Your task to perform on an android device: find which apps use the phone's location Image 0: 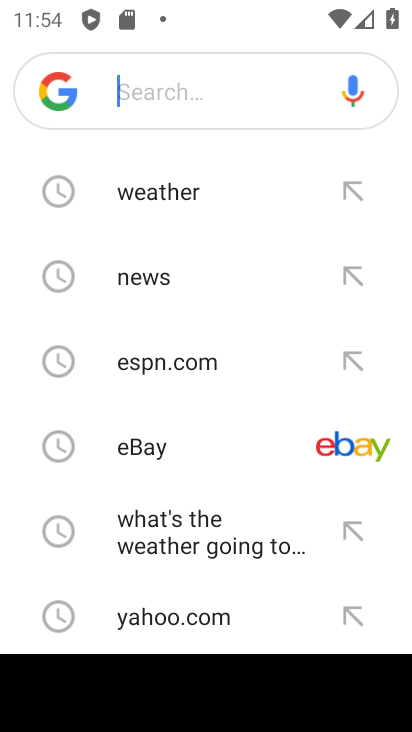
Step 0: press home button
Your task to perform on an android device: find which apps use the phone's location Image 1: 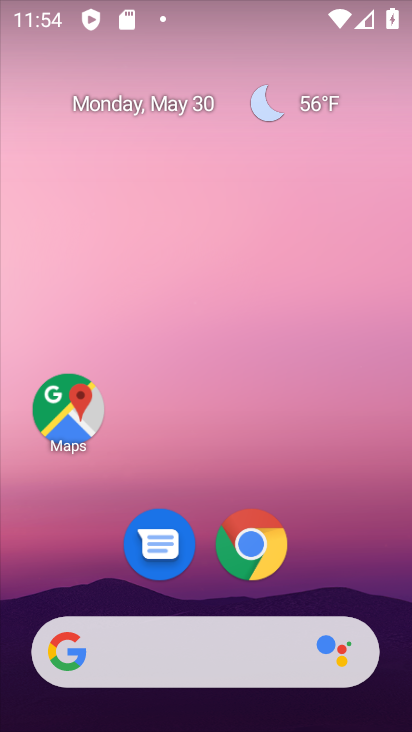
Step 1: drag from (348, 558) to (268, 235)
Your task to perform on an android device: find which apps use the phone's location Image 2: 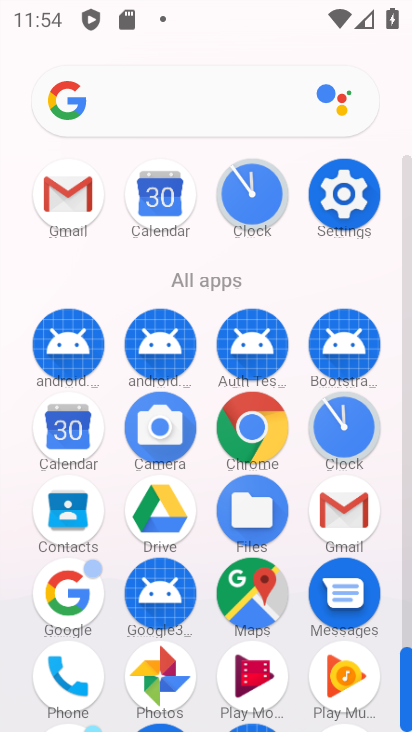
Step 2: click (335, 194)
Your task to perform on an android device: find which apps use the phone's location Image 3: 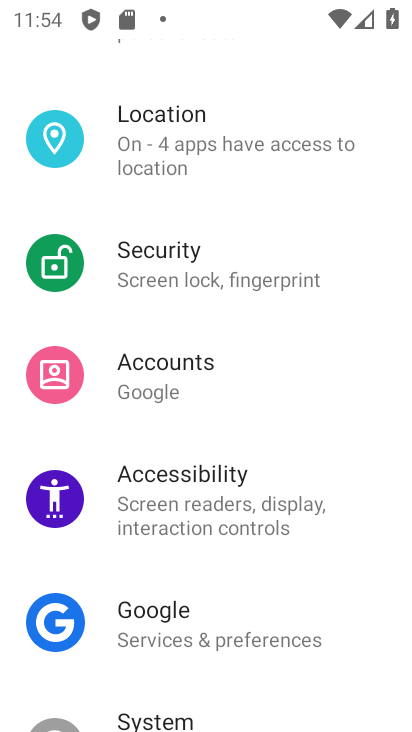
Step 3: click (166, 123)
Your task to perform on an android device: find which apps use the phone's location Image 4: 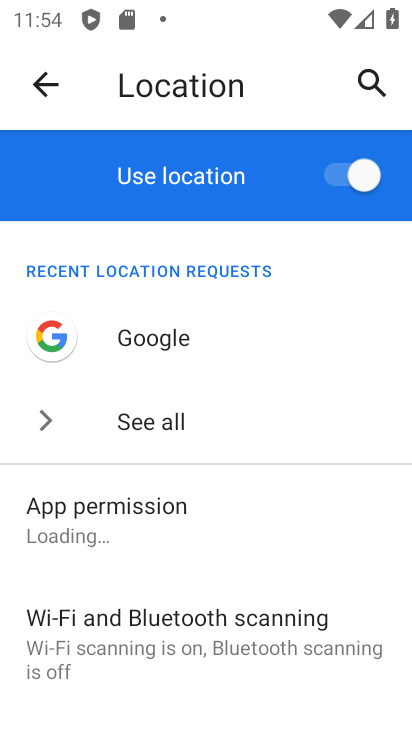
Step 4: drag from (202, 495) to (202, 344)
Your task to perform on an android device: find which apps use the phone's location Image 5: 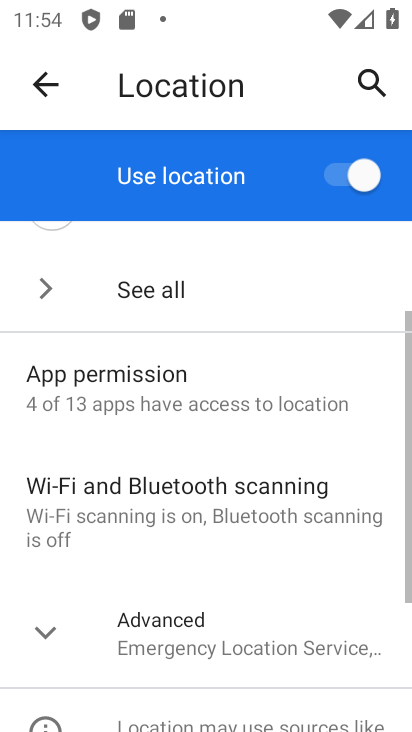
Step 5: click (73, 298)
Your task to perform on an android device: find which apps use the phone's location Image 6: 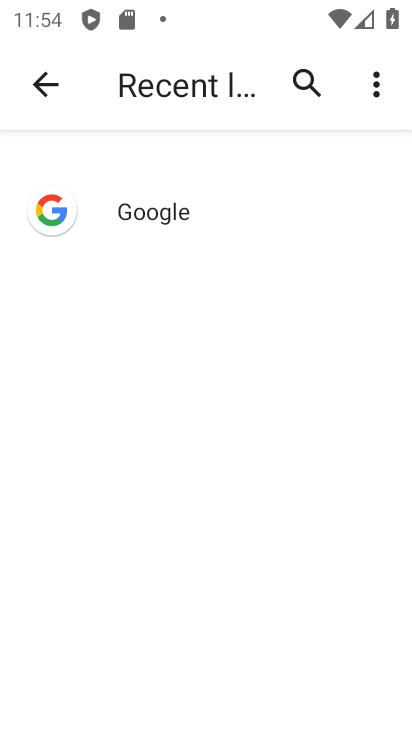
Step 6: task complete